Your task to perform on an android device: Open the Play Movies app and select the watchlist tab. Image 0: 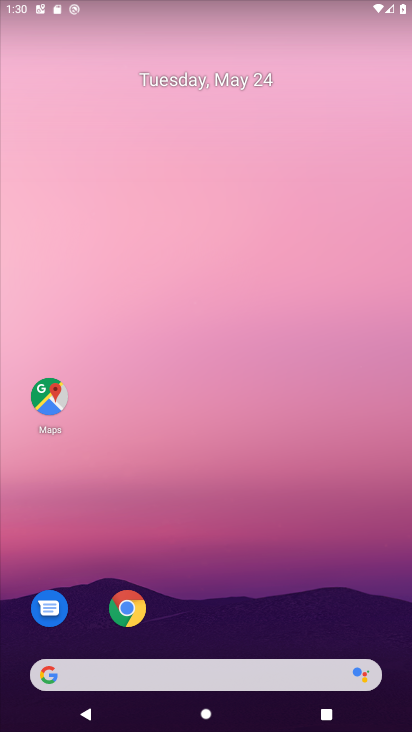
Step 0: drag from (263, 581) to (250, 286)
Your task to perform on an android device: Open the Play Movies app and select the watchlist tab. Image 1: 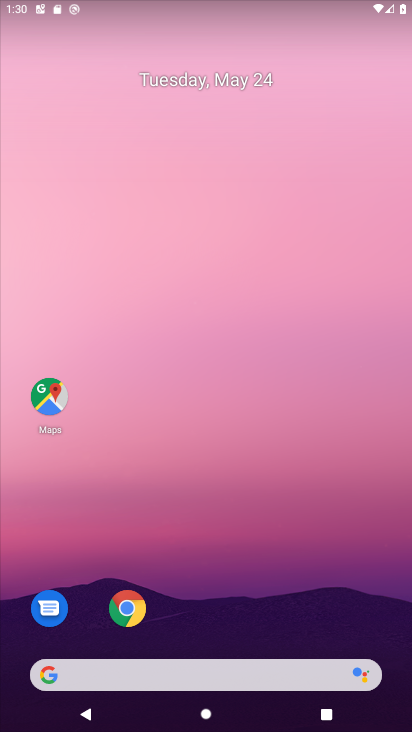
Step 1: drag from (318, 604) to (295, 2)
Your task to perform on an android device: Open the Play Movies app and select the watchlist tab. Image 2: 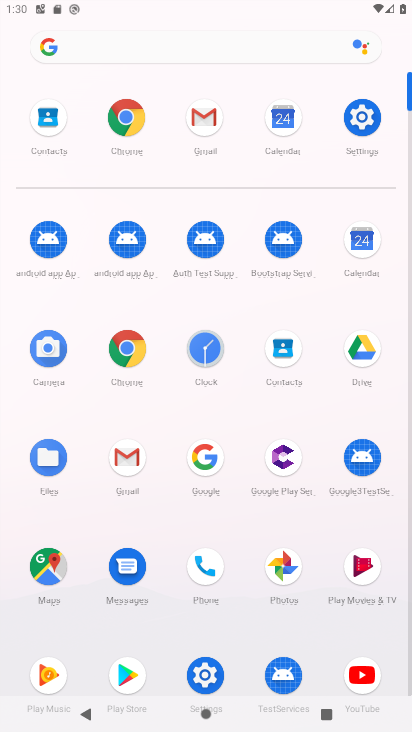
Step 2: click (346, 596)
Your task to perform on an android device: Open the Play Movies app and select the watchlist tab. Image 3: 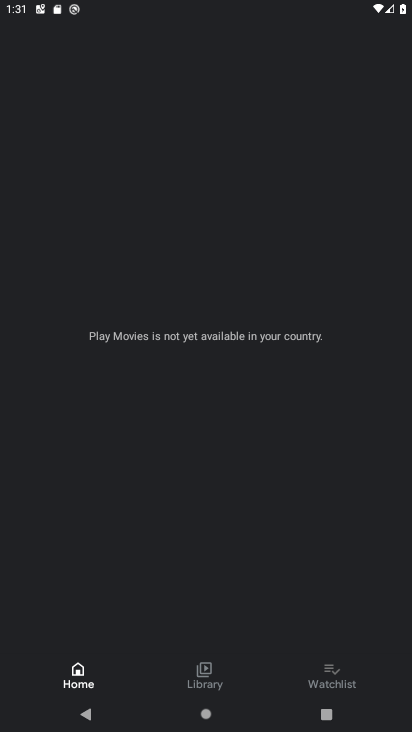
Step 3: click (344, 670)
Your task to perform on an android device: Open the Play Movies app and select the watchlist tab. Image 4: 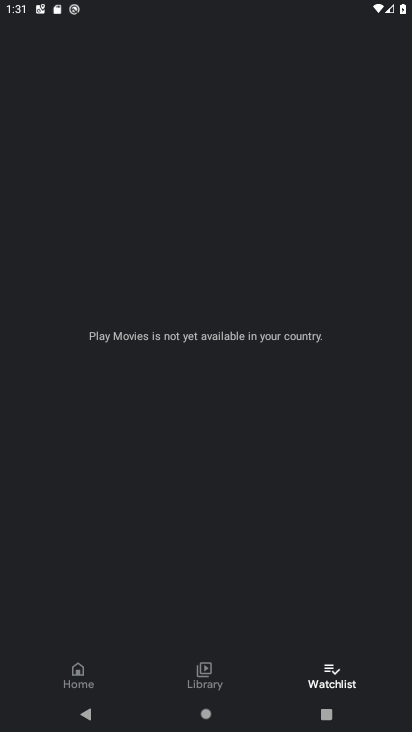
Step 4: task complete